Your task to perform on an android device: change the clock display to analog Image 0: 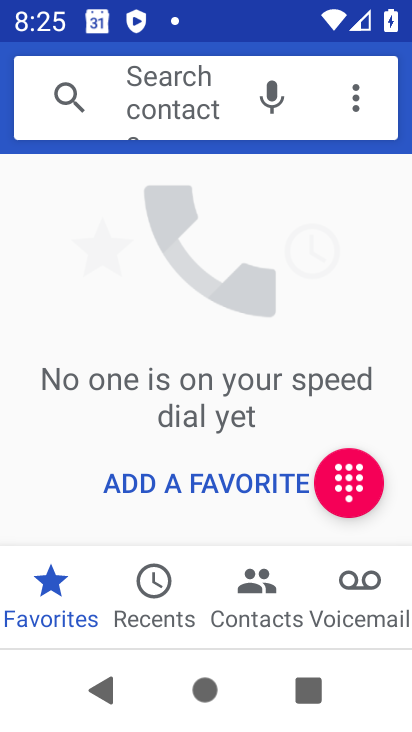
Step 0: press home button
Your task to perform on an android device: change the clock display to analog Image 1: 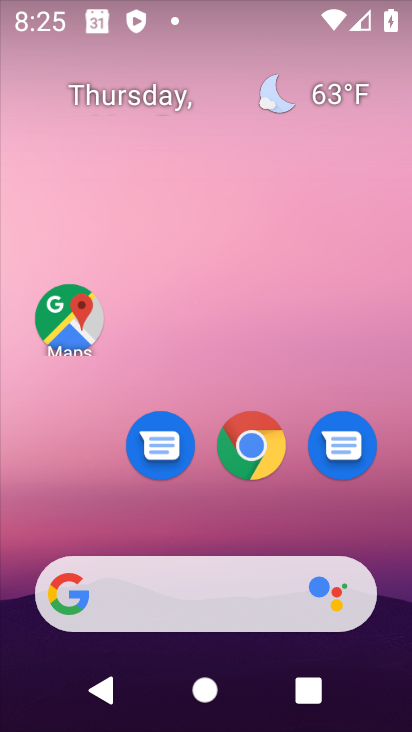
Step 1: drag from (183, 531) to (409, 208)
Your task to perform on an android device: change the clock display to analog Image 2: 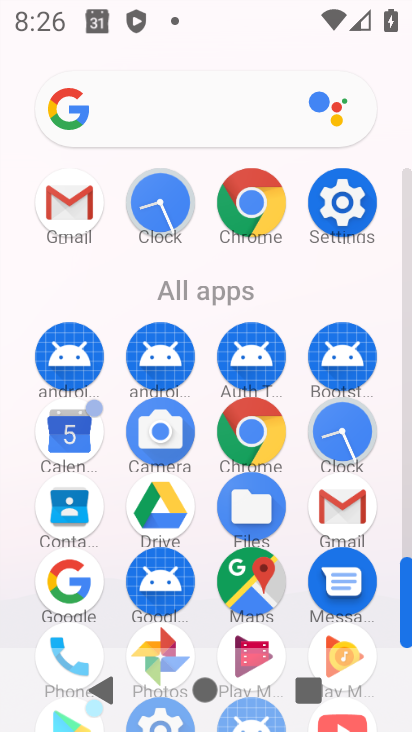
Step 2: click (335, 438)
Your task to perform on an android device: change the clock display to analog Image 3: 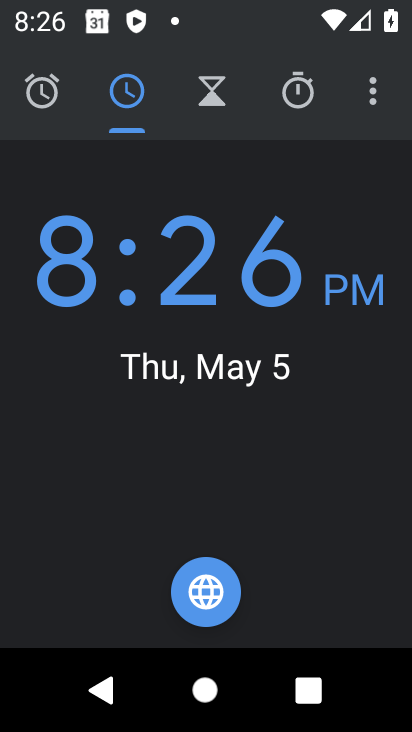
Step 3: click (371, 97)
Your task to perform on an android device: change the clock display to analog Image 4: 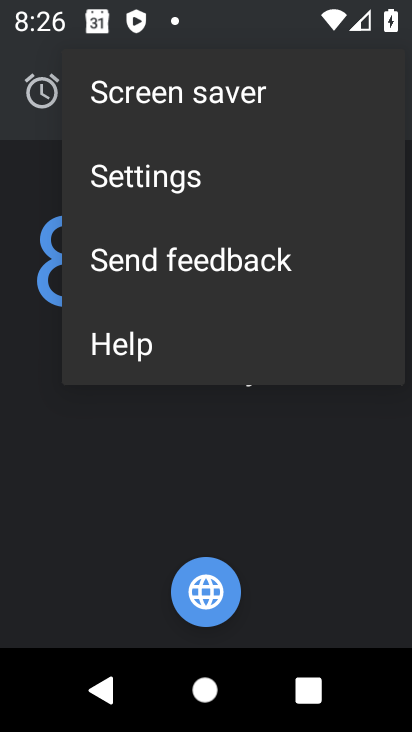
Step 4: click (163, 174)
Your task to perform on an android device: change the clock display to analog Image 5: 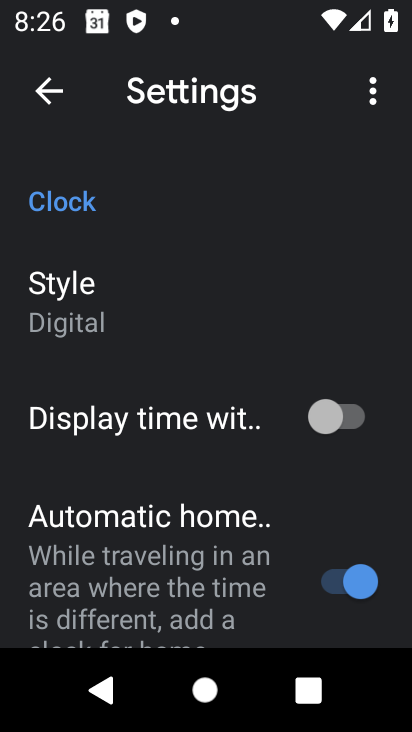
Step 5: click (86, 290)
Your task to perform on an android device: change the clock display to analog Image 6: 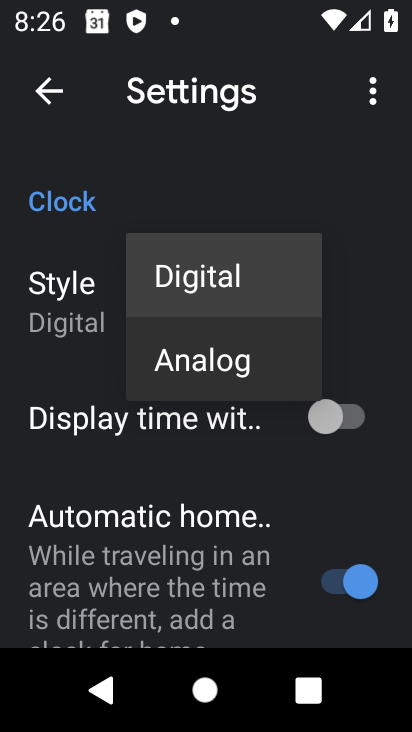
Step 6: click (173, 341)
Your task to perform on an android device: change the clock display to analog Image 7: 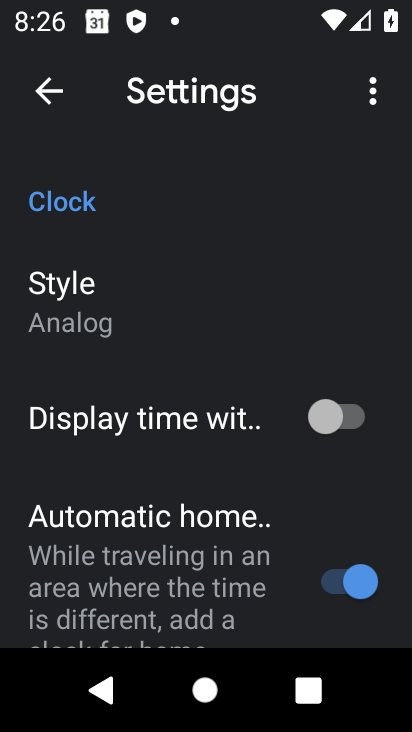
Step 7: task complete